Your task to perform on an android device: turn on wifi Image 0: 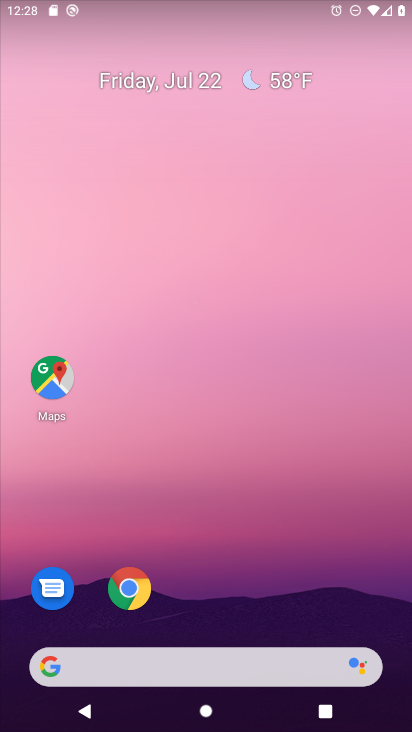
Step 0: drag from (245, 591) to (339, 27)
Your task to perform on an android device: turn on wifi Image 1: 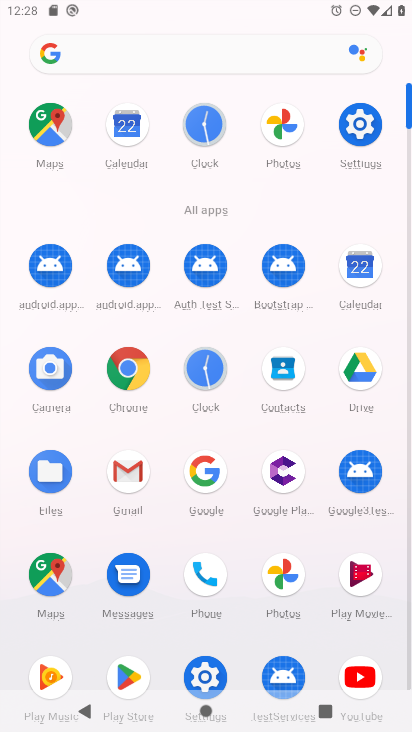
Step 1: click (359, 123)
Your task to perform on an android device: turn on wifi Image 2: 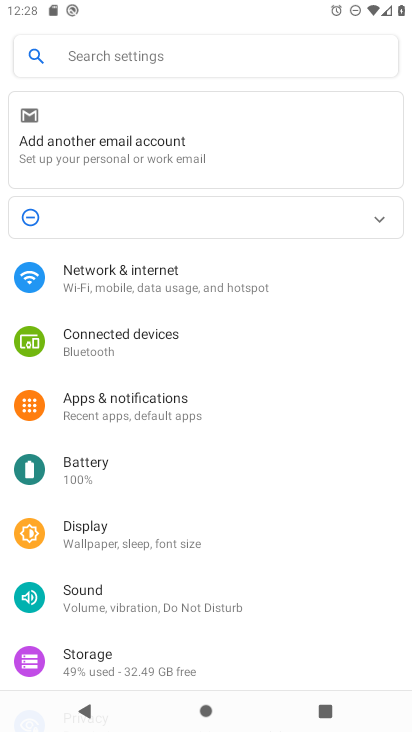
Step 2: click (186, 281)
Your task to perform on an android device: turn on wifi Image 3: 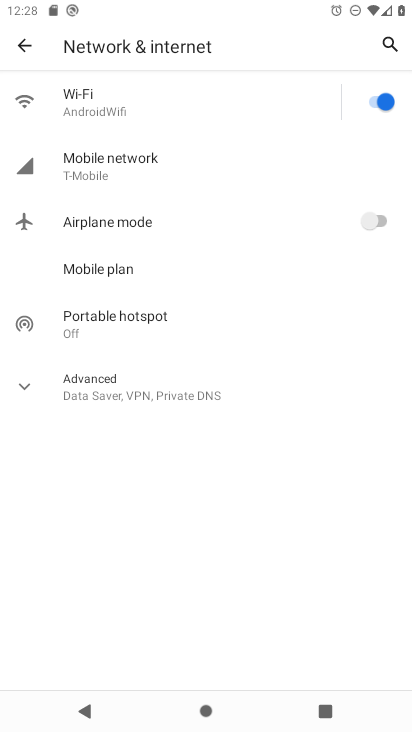
Step 3: task complete